Your task to perform on an android device: What's the top post on reddit? Image 0: 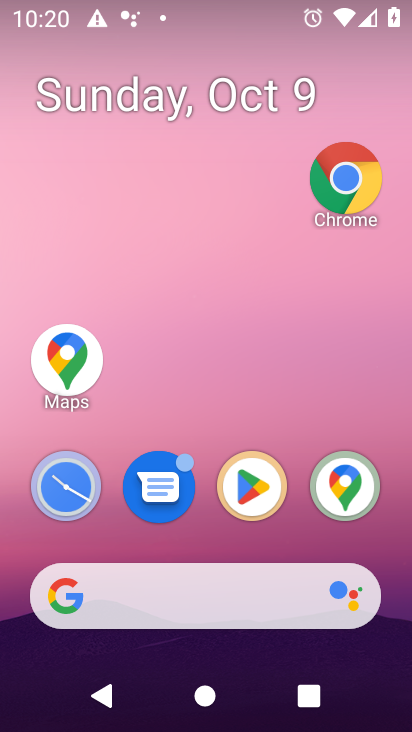
Step 0: click (391, 192)
Your task to perform on an android device: What's the top post on reddit? Image 1: 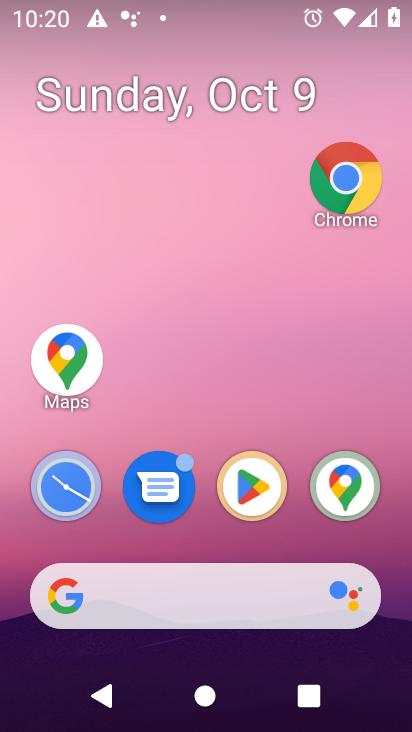
Step 1: drag from (266, 595) to (294, 261)
Your task to perform on an android device: What's the top post on reddit? Image 2: 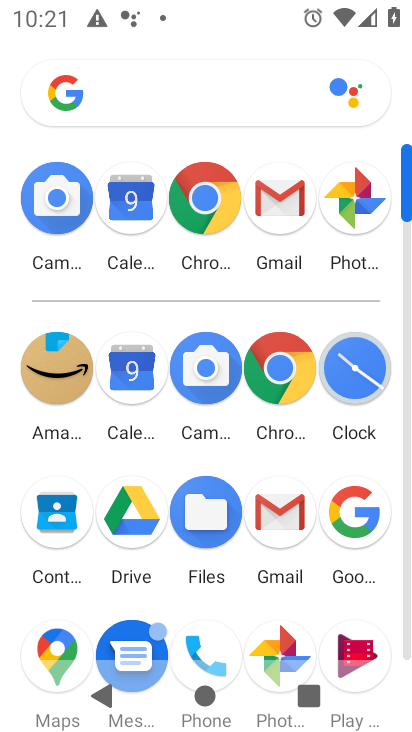
Step 2: click (349, 532)
Your task to perform on an android device: What's the top post on reddit? Image 3: 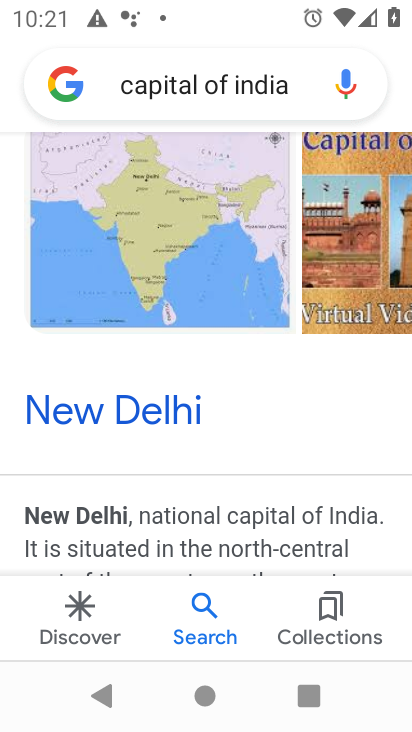
Step 3: click (294, 87)
Your task to perform on an android device: What's the top post on reddit? Image 4: 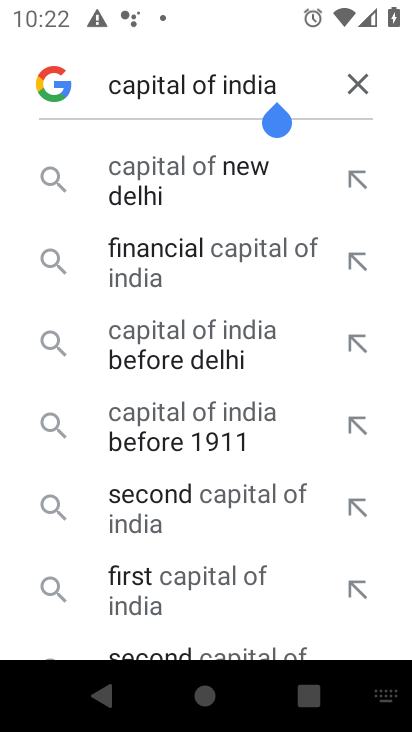
Step 4: click (365, 84)
Your task to perform on an android device: What's the top post on reddit? Image 5: 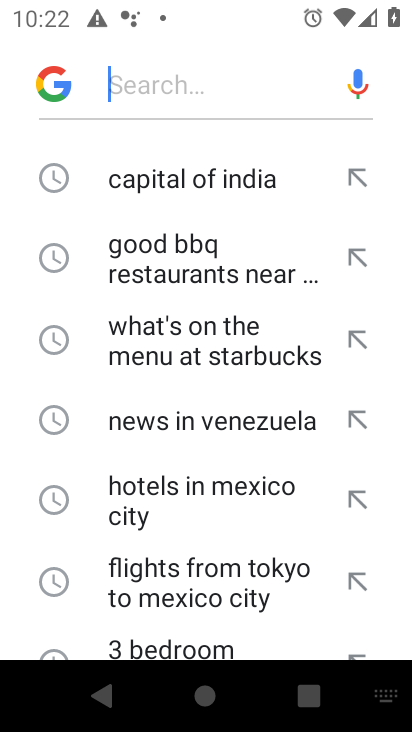
Step 5: type "top post on reddit"
Your task to perform on an android device: What's the top post on reddit? Image 6: 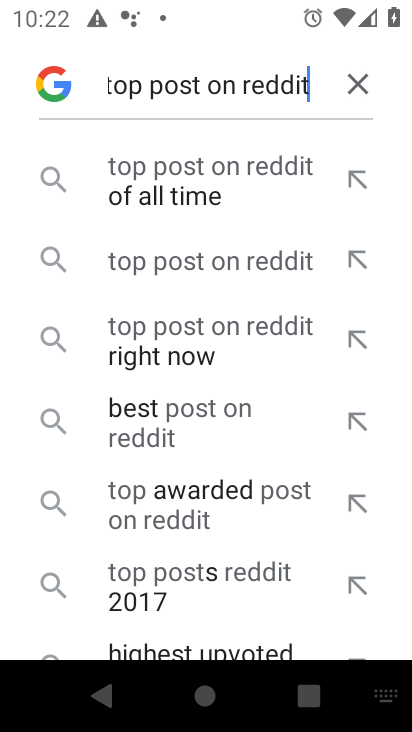
Step 6: click (219, 200)
Your task to perform on an android device: What's the top post on reddit? Image 7: 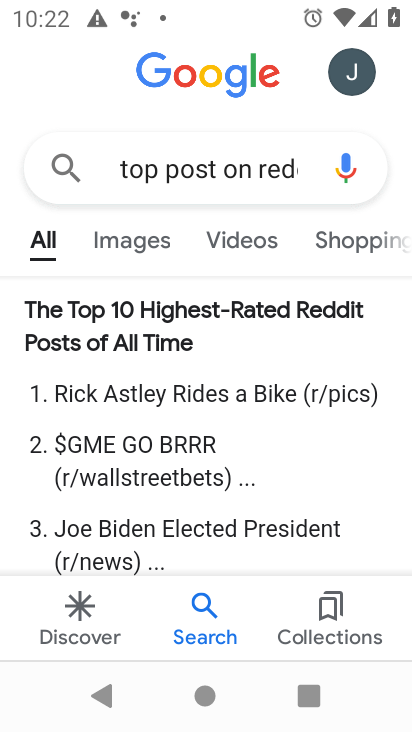
Step 7: task complete